Your task to perform on an android device: Go to calendar. Show me events next week Image 0: 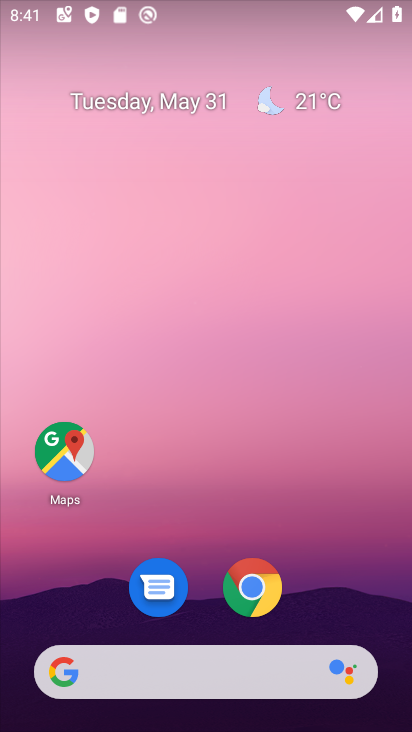
Step 0: click (168, 103)
Your task to perform on an android device: Go to calendar. Show me events next week Image 1: 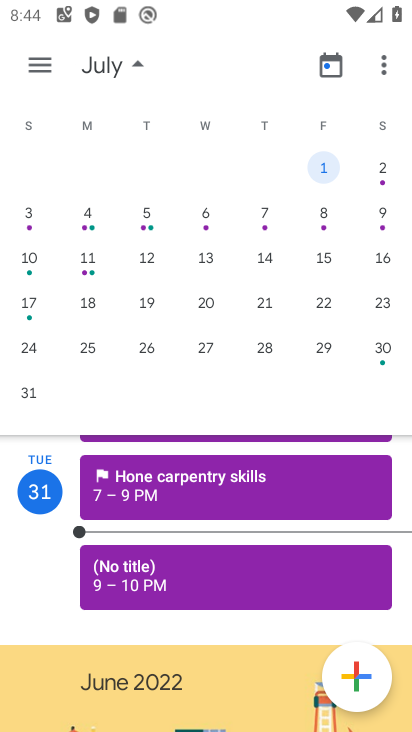
Step 1: task complete